Your task to perform on an android device: turn on notifications settings in the gmail app Image 0: 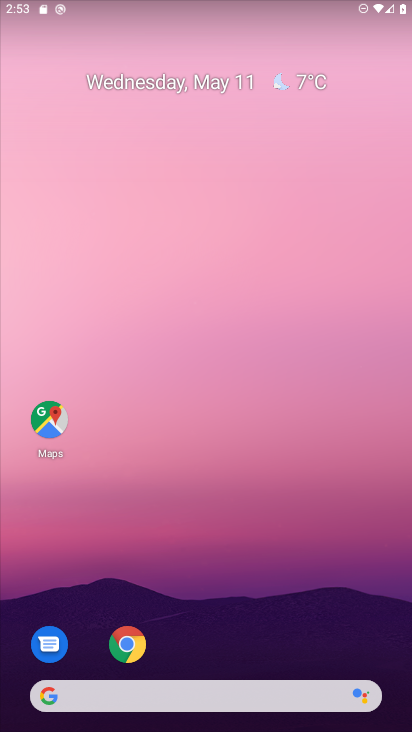
Step 0: drag from (202, 647) to (261, 43)
Your task to perform on an android device: turn on notifications settings in the gmail app Image 1: 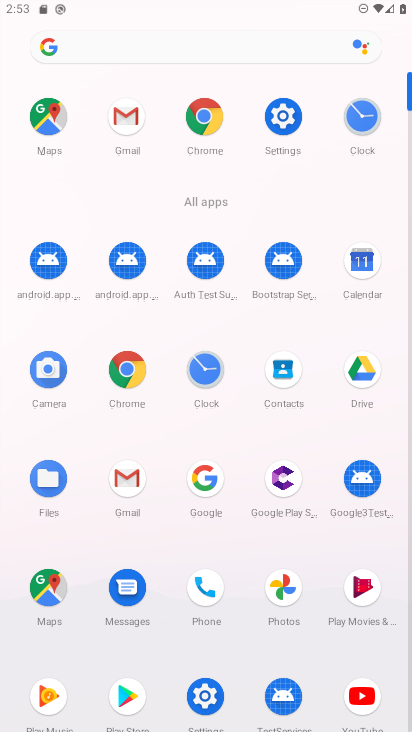
Step 1: click (128, 118)
Your task to perform on an android device: turn on notifications settings in the gmail app Image 2: 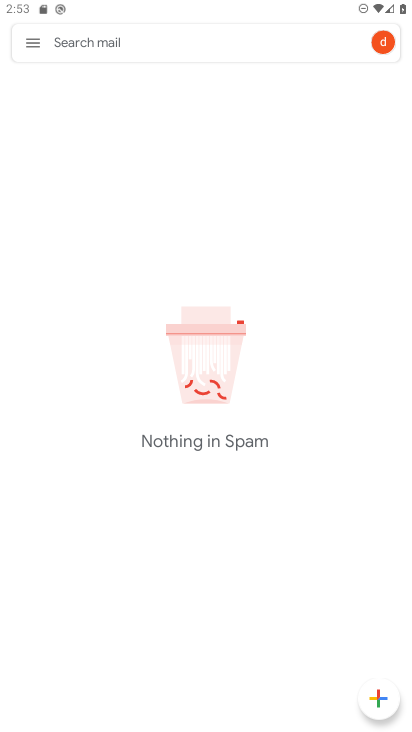
Step 2: click (26, 46)
Your task to perform on an android device: turn on notifications settings in the gmail app Image 3: 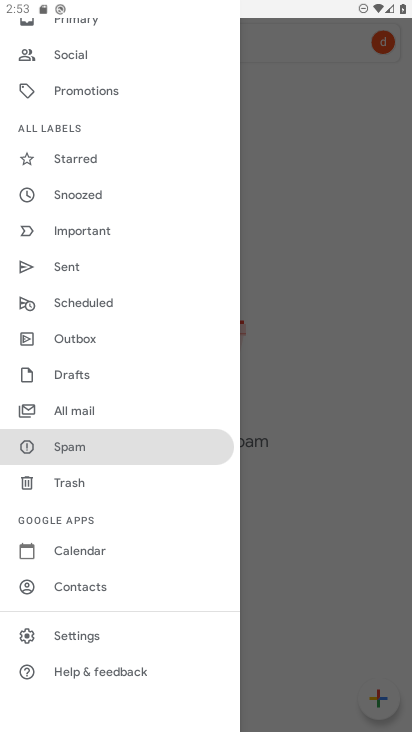
Step 3: click (69, 639)
Your task to perform on an android device: turn on notifications settings in the gmail app Image 4: 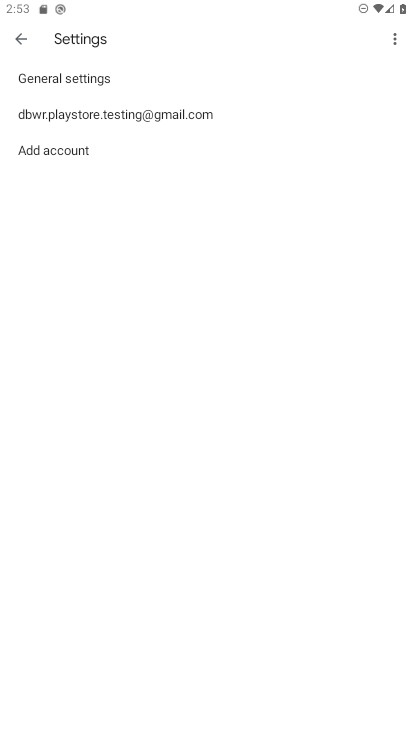
Step 4: click (92, 75)
Your task to perform on an android device: turn on notifications settings in the gmail app Image 5: 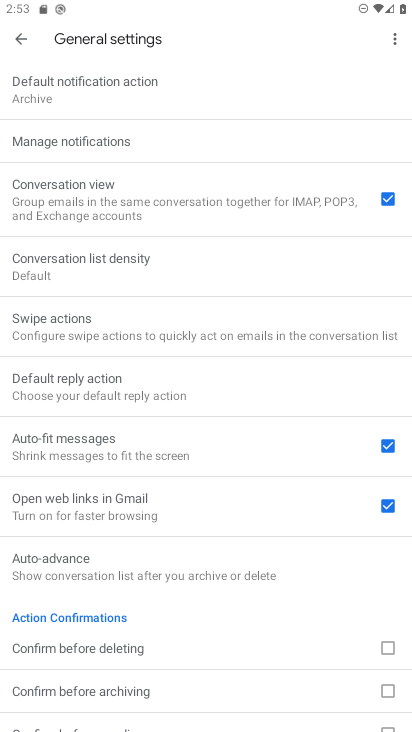
Step 5: click (122, 139)
Your task to perform on an android device: turn on notifications settings in the gmail app Image 6: 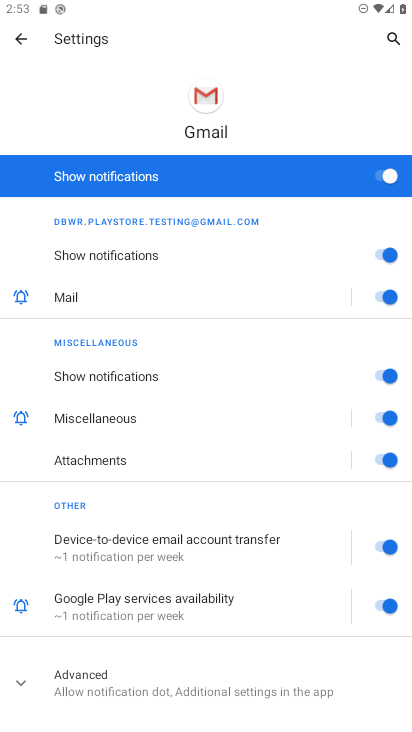
Step 6: task complete